Your task to perform on an android device: toggle location history Image 0: 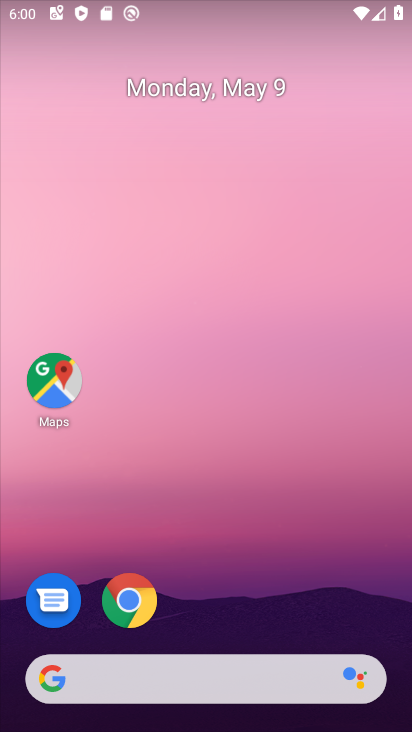
Step 0: drag from (261, 589) to (263, 8)
Your task to perform on an android device: toggle location history Image 1: 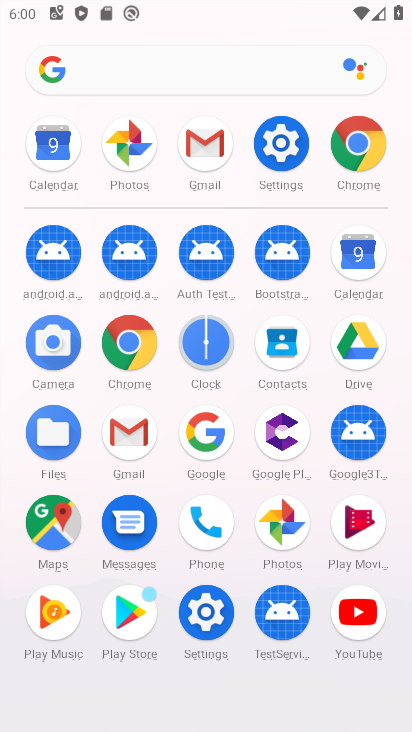
Step 1: click (208, 616)
Your task to perform on an android device: toggle location history Image 2: 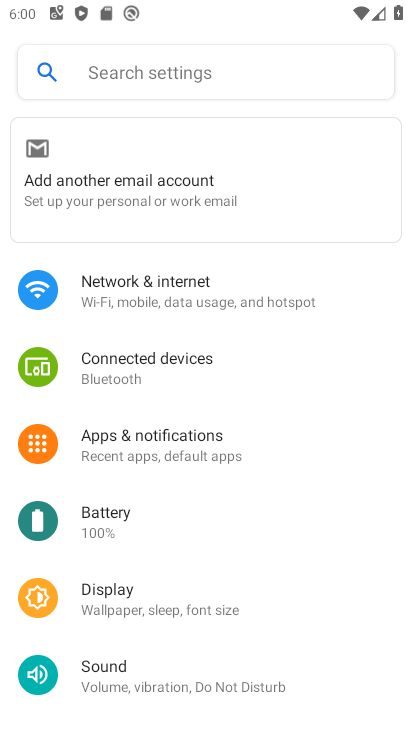
Step 2: drag from (183, 669) to (261, 293)
Your task to perform on an android device: toggle location history Image 3: 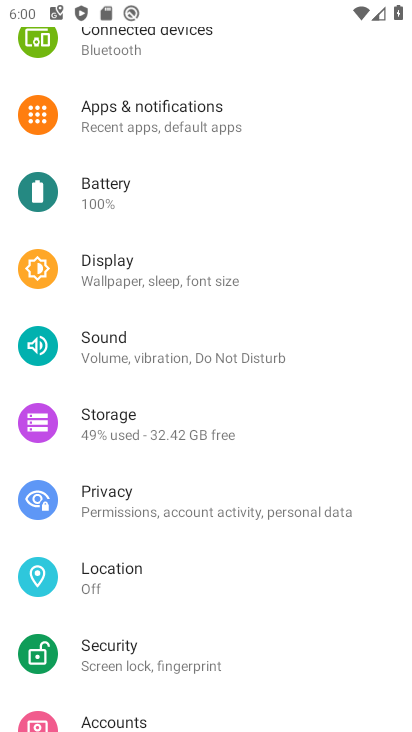
Step 3: click (129, 561)
Your task to perform on an android device: toggle location history Image 4: 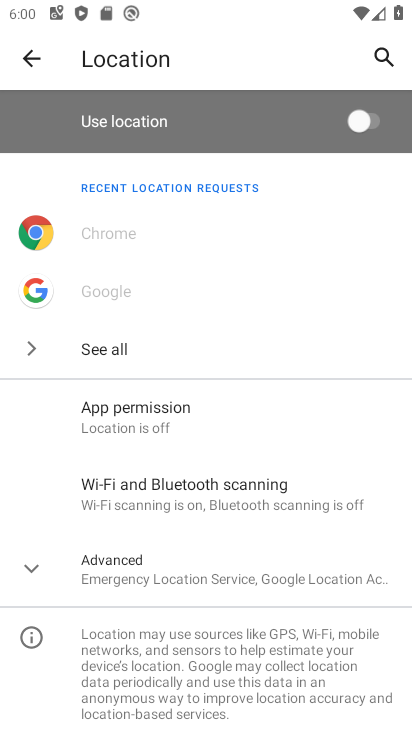
Step 4: click (188, 576)
Your task to perform on an android device: toggle location history Image 5: 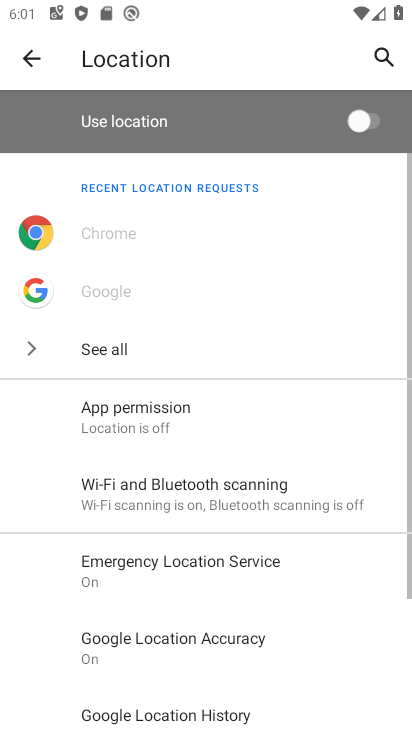
Step 5: drag from (190, 609) to (202, 350)
Your task to perform on an android device: toggle location history Image 6: 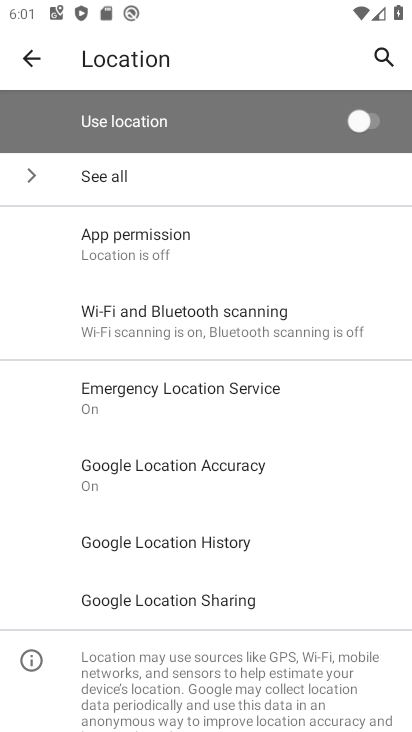
Step 6: click (152, 546)
Your task to perform on an android device: toggle location history Image 7: 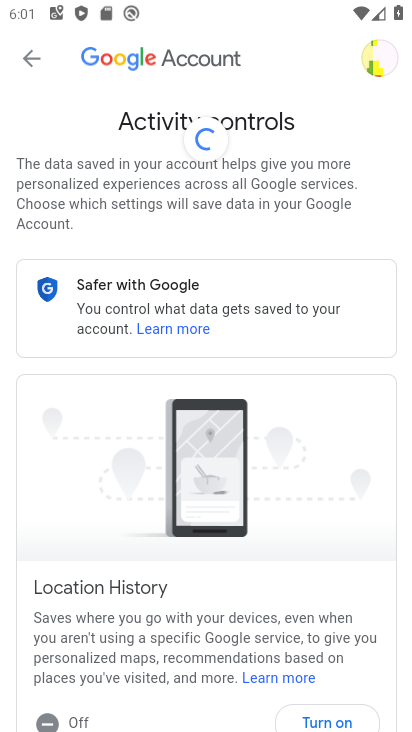
Step 7: drag from (298, 628) to (310, 401)
Your task to perform on an android device: toggle location history Image 8: 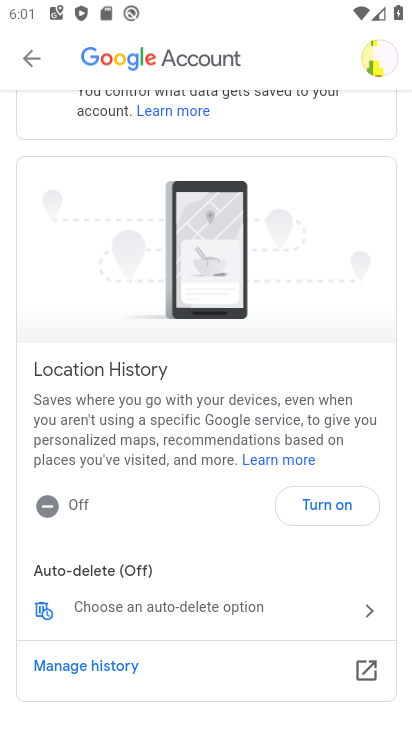
Step 8: click (312, 498)
Your task to perform on an android device: toggle location history Image 9: 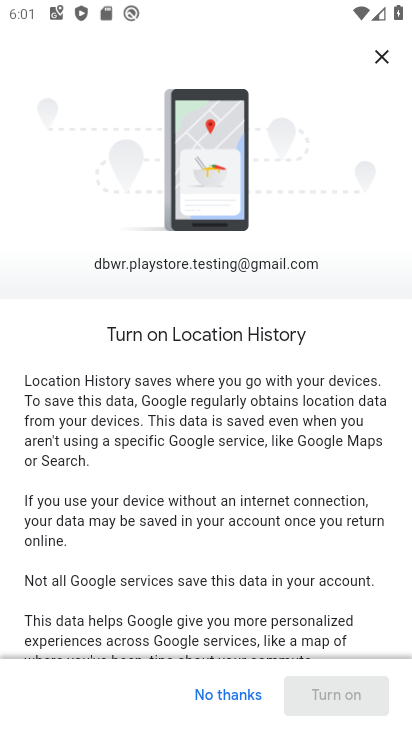
Step 9: drag from (252, 637) to (299, 218)
Your task to perform on an android device: toggle location history Image 10: 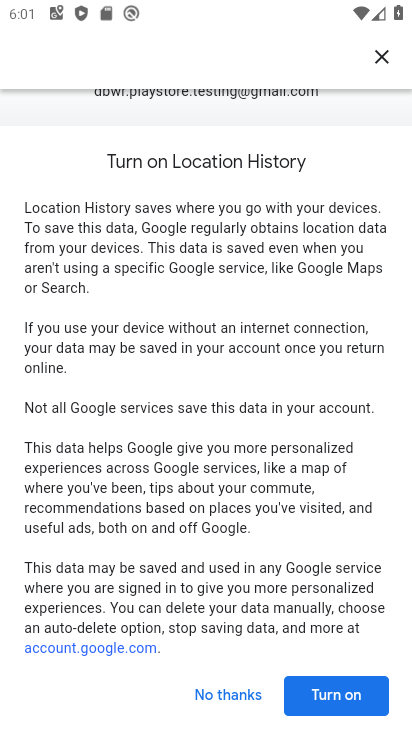
Step 10: click (329, 695)
Your task to perform on an android device: toggle location history Image 11: 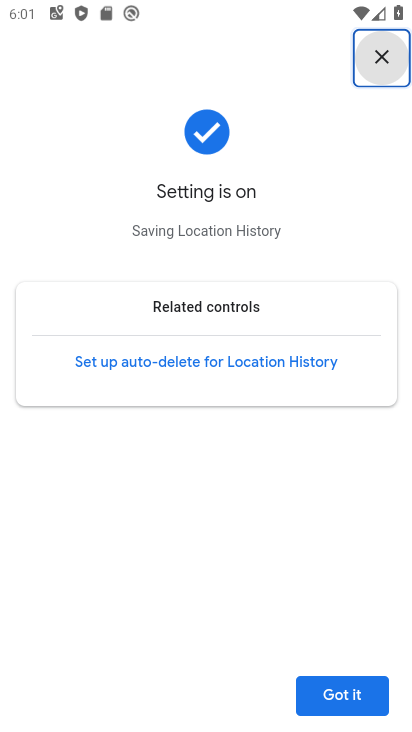
Step 11: click (329, 695)
Your task to perform on an android device: toggle location history Image 12: 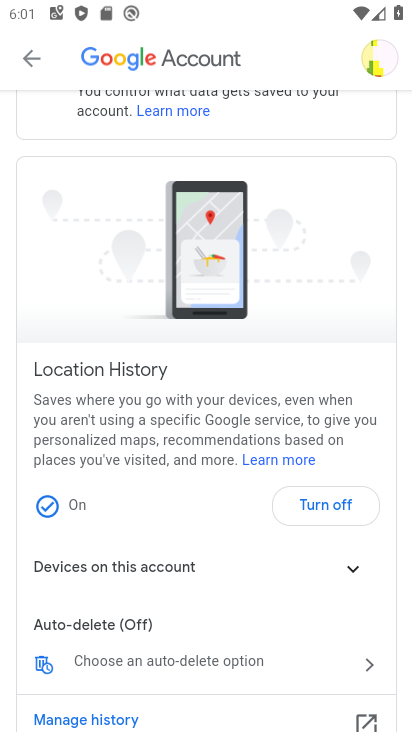
Step 12: task complete